Your task to perform on an android device: Open Android settings Image 0: 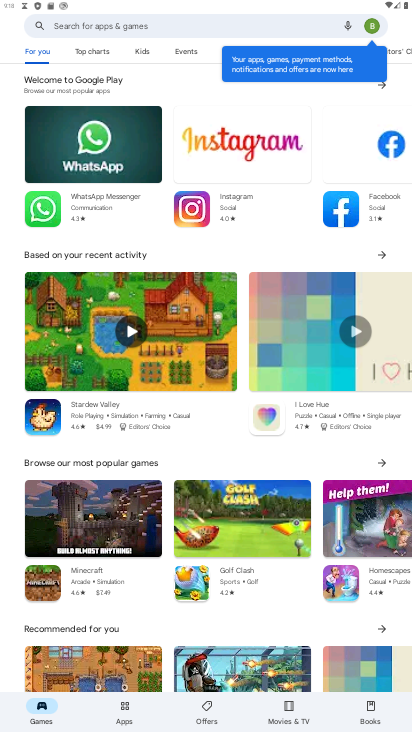
Step 0: press home button
Your task to perform on an android device: Open Android settings Image 1: 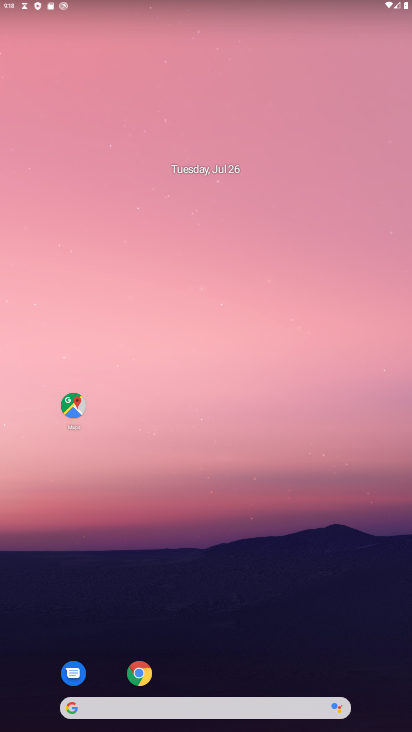
Step 1: drag from (179, 703) to (331, 9)
Your task to perform on an android device: Open Android settings Image 2: 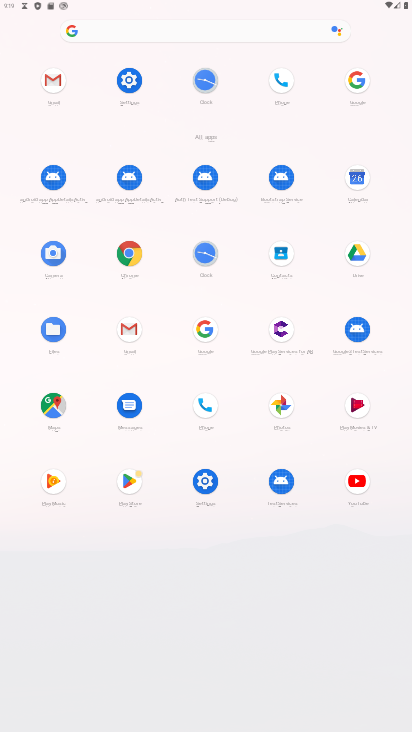
Step 2: click (128, 79)
Your task to perform on an android device: Open Android settings Image 3: 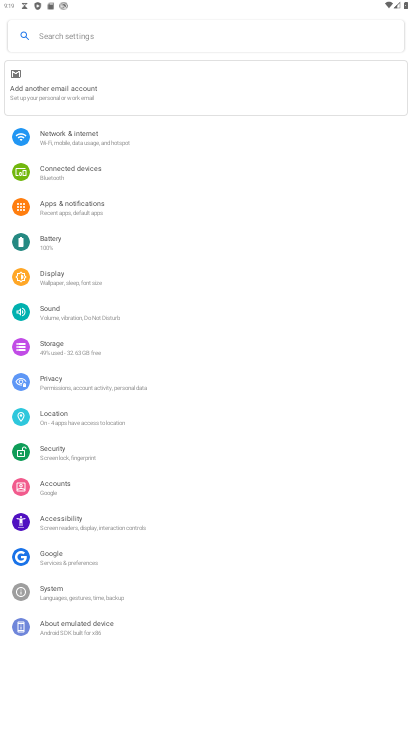
Step 3: task complete